Your task to perform on an android device: Search for seafood restaurants on Google Maps Image 0: 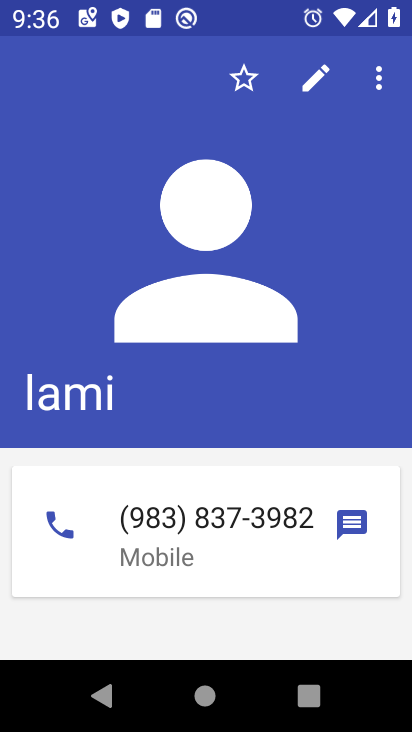
Step 0: press home button
Your task to perform on an android device: Search for seafood restaurants on Google Maps Image 1: 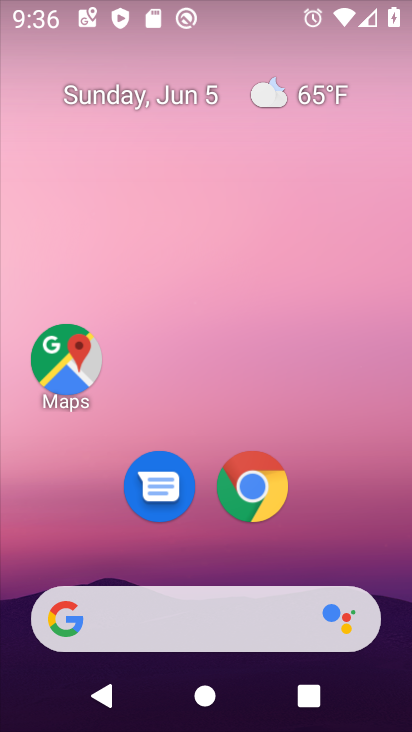
Step 1: drag from (350, 531) to (299, 122)
Your task to perform on an android device: Search for seafood restaurants on Google Maps Image 2: 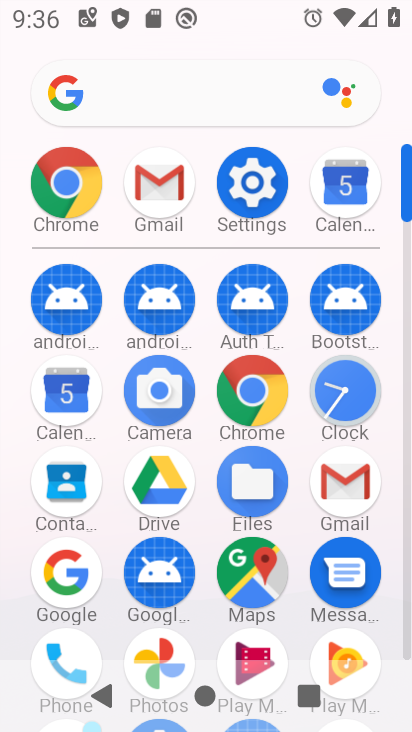
Step 2: click (228, 574)
Your task to perform on an android device: Search for seafood restaurants on Google Maps Image 3: 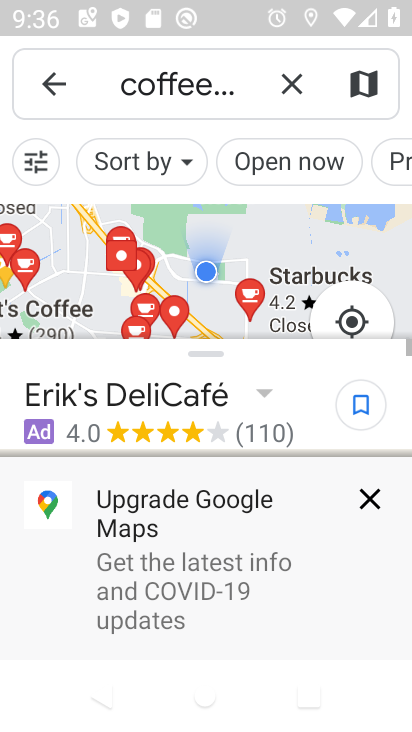
Step 3: click (296, 75)
Your task to perform on an android device: Search for seafood restaurants on Google Maps Image 4: 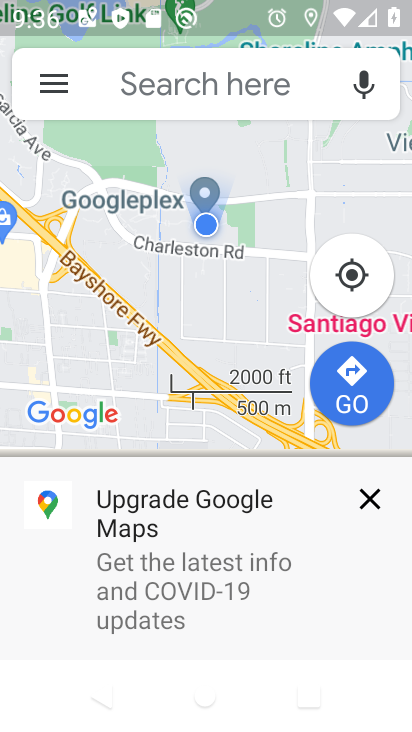
Step 4: click (183, 94)
Your task to perform on an android device: Search for seafood restaurants on Google Maps Image 5: 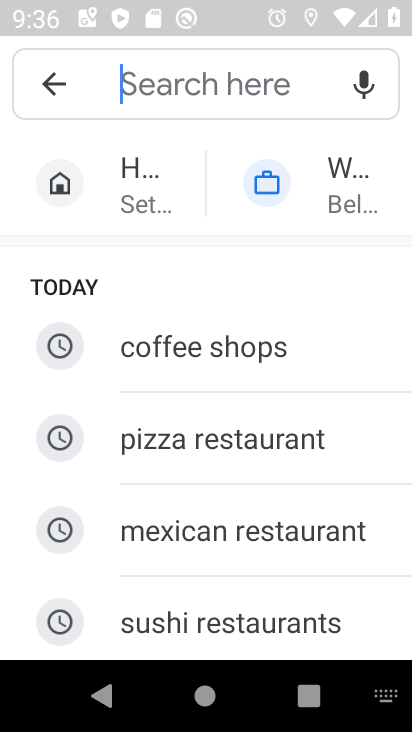
Step 5: type "seafood restaurants "
Your task to perform on an android device: Search for seafood restaurants on Google Maps Image 6: 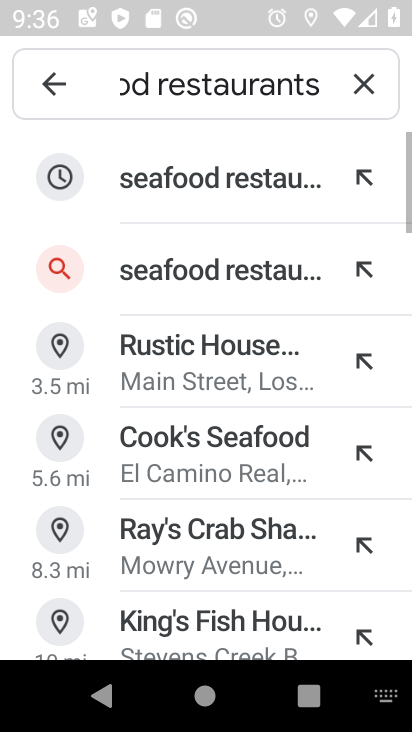
Step 6: click (213, 191)
Your task to perform on an android device: Search for seafood restaurants on Google Maps Image 7: 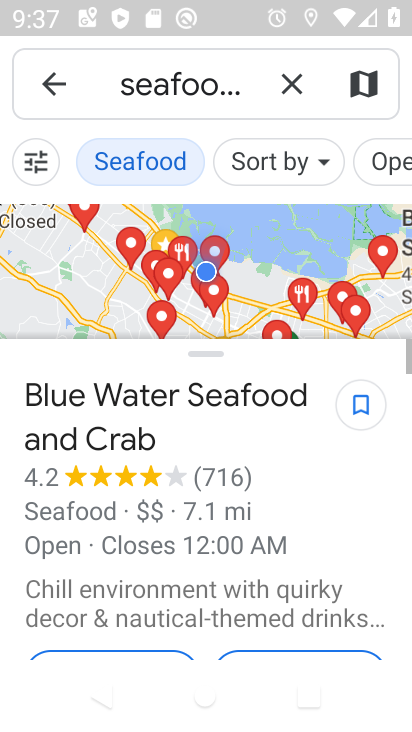
Step 7: task complete